Your task to perform on an android device: What's on my calendar tomorrow? Image 0: 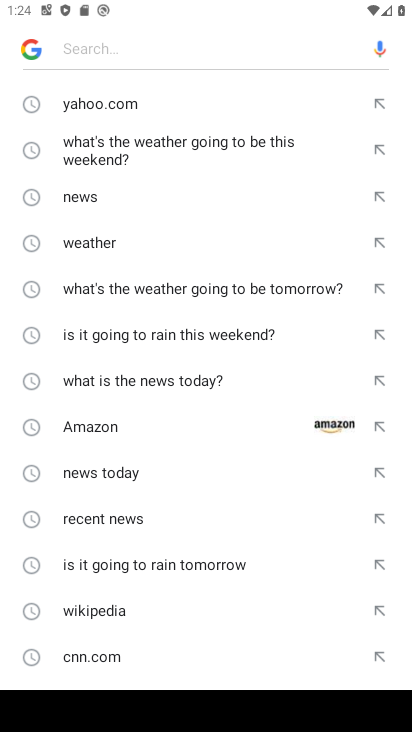
Step 0: press home button
Your task to perform on an android device: What's on my calendar tomorrow? Image 1: 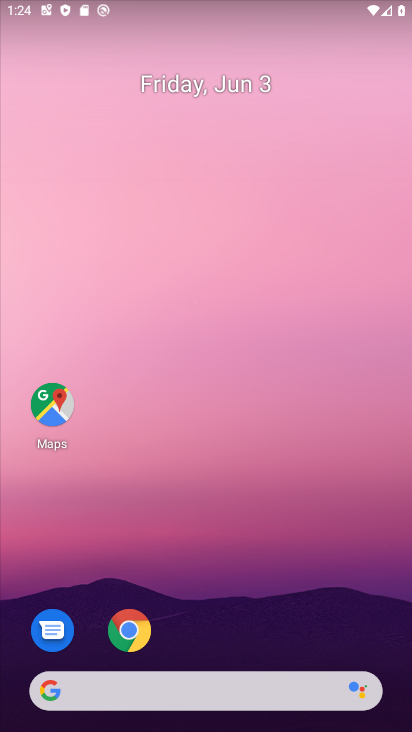
Step 1: drag from (212, 730) to (212, 147)
Your task to perform on an android device: What's on my calendar tomorrow? Image 2: 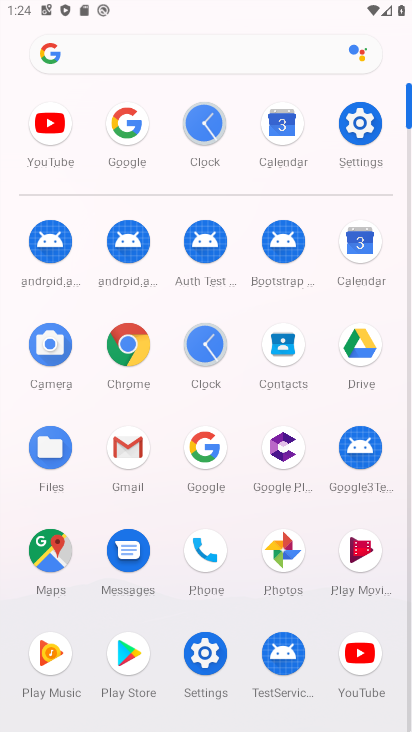
Step 2: click (366, 245)
Your task to perform on an android device: What's on my calendar tomorrow? Image 3: 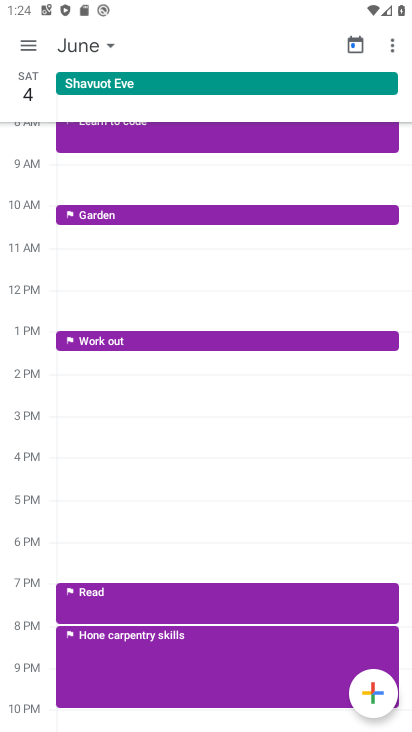
Step 3: task complete